Your task to perform on an android device: Toggle the flashlight Image 0: 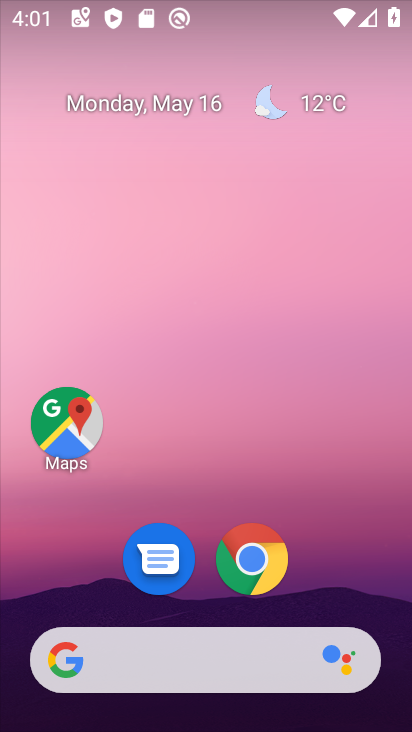
Step 0: drag from (356, 535) to (348, 192)
Your task to perform on an android device: Toggle the flashlight Image 1: 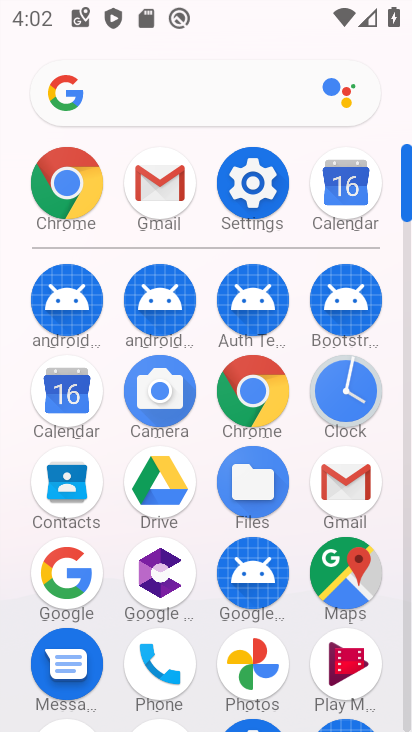
Step 1: click (256, 183)
Your task to perform on an android device: Toggle the flashlight Image 2: 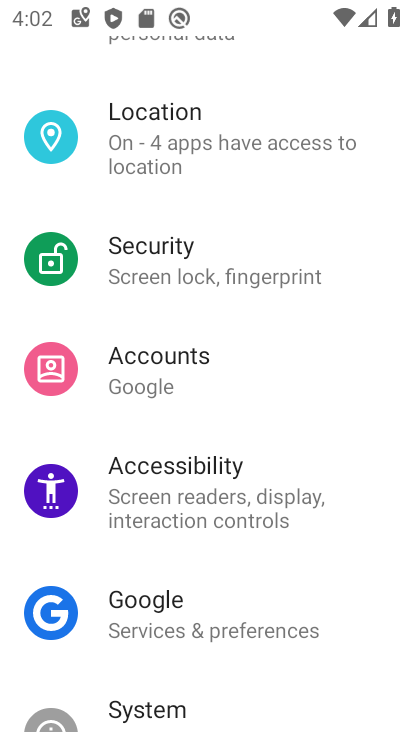
Step 2: click (241, 290)
Your task to perform on an android device: Toggle the flashlight Image 3: 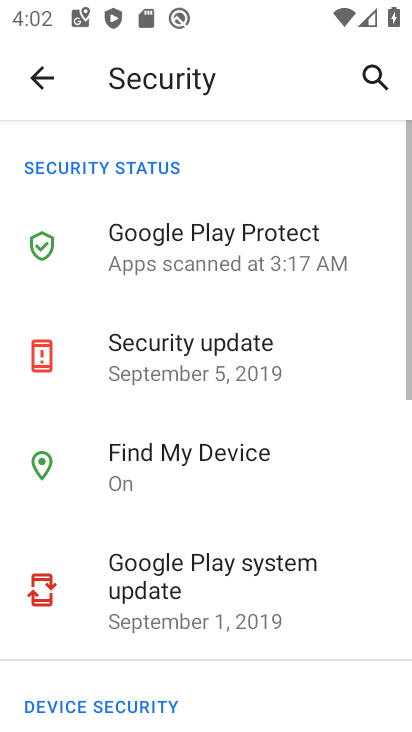
Step 3: task complete